Your task to perform on an android device: Open Wikipedia Image 0: 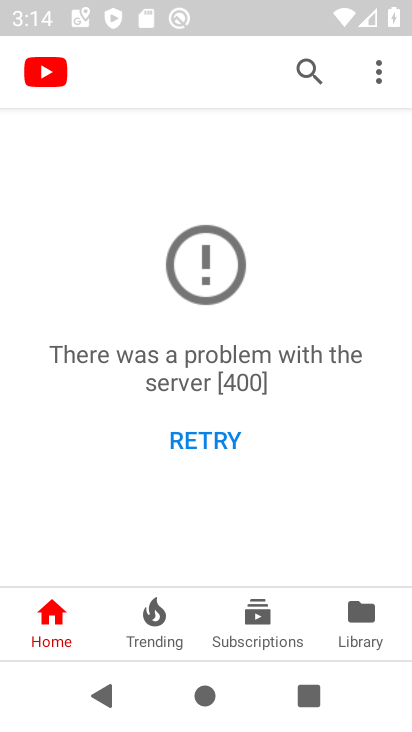
Step 0: press home button
Your task to perform on an android device: Open Wikipedia Image 1: 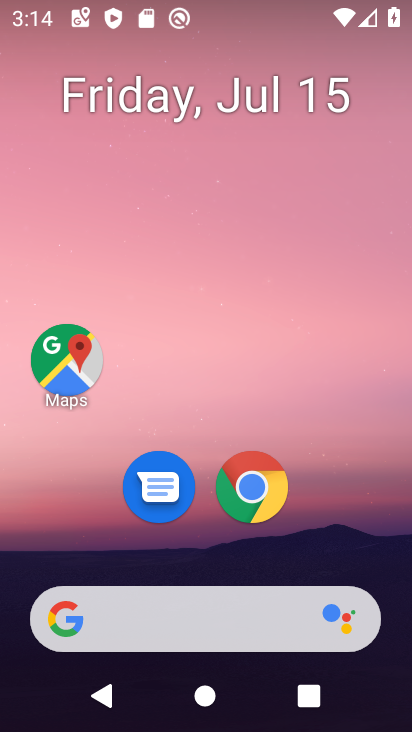
Step 1: click (267, 512)
Your task to perform on an android device: Open Wikipedia Image 2: 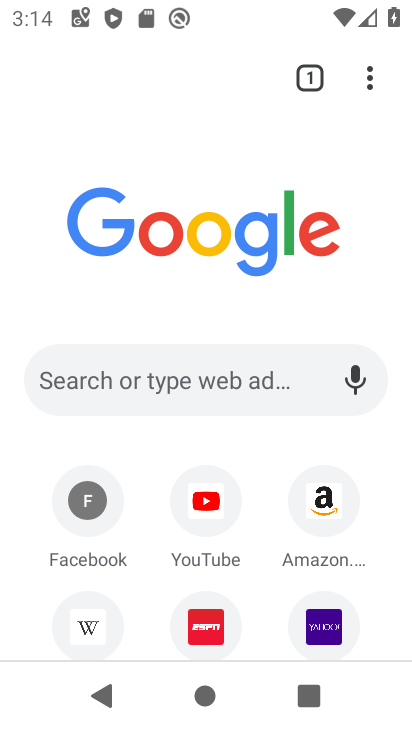
Step 2: click (93, 625)
Your task to perform on an android device: Open Wikipedia Image 3: 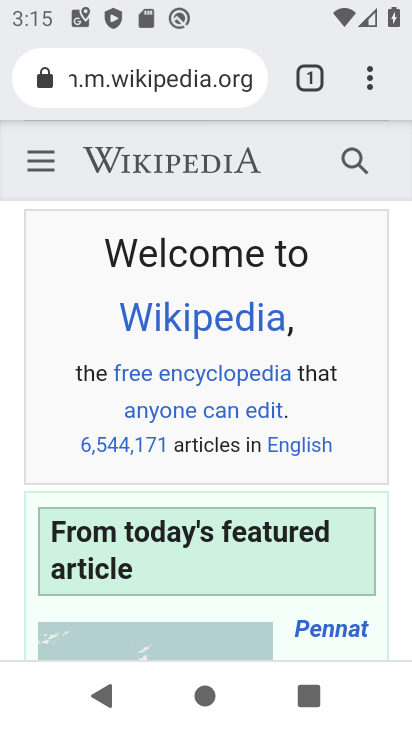
Step 3: task complete